Your task to perform on an android device: delete the emails in spam in the gmail app Image 0: 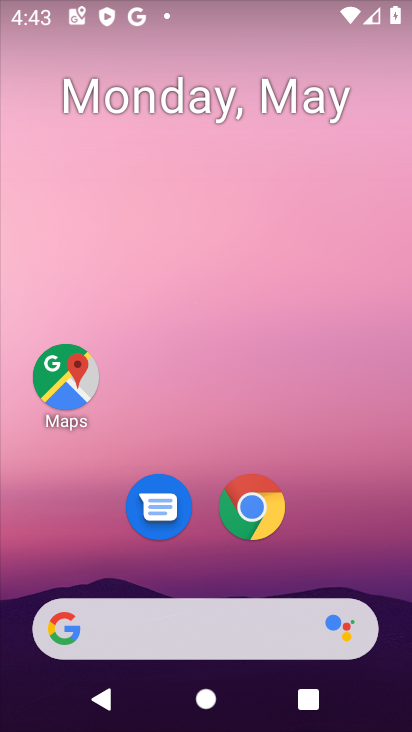
Step 0: drag from (359, 426) to (339, 64)
Your task to perform on an android device: delete the emails in spam in the gmail app Image 1: 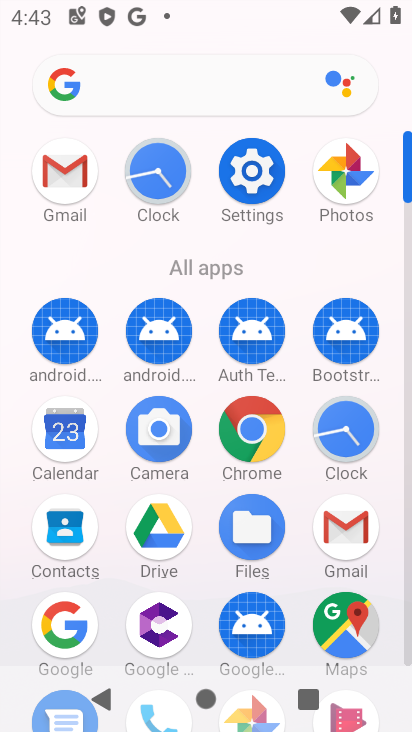
Step 1: click (64, 155)
Your task to perform on an android device: delete the emails in spam in the gmail app Image 2: 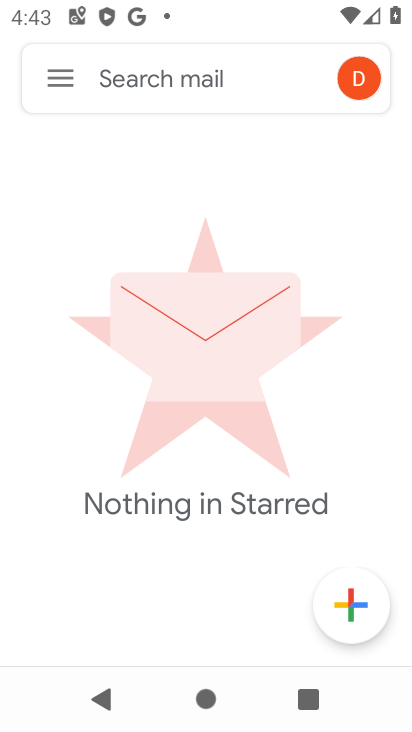
Step 2: click (54, 94)
Your task to perform on an android device: delete the emails in spam in the gmail app Image 3: 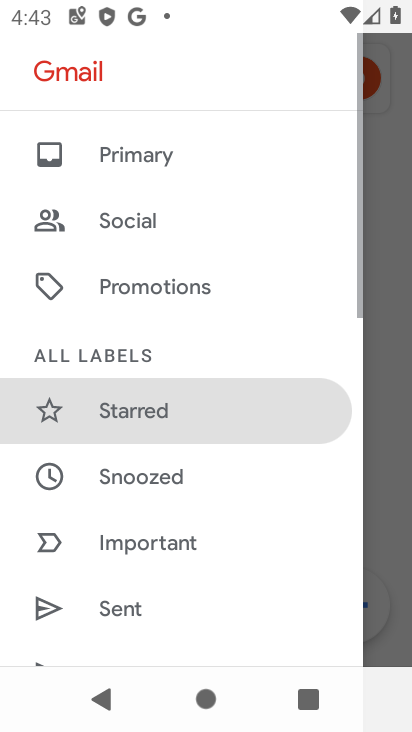
Step 3: drag from (116, 302) to (183, 622)
Your task to perform on an android device: delete the emails in spam in the gmail app Image 4: 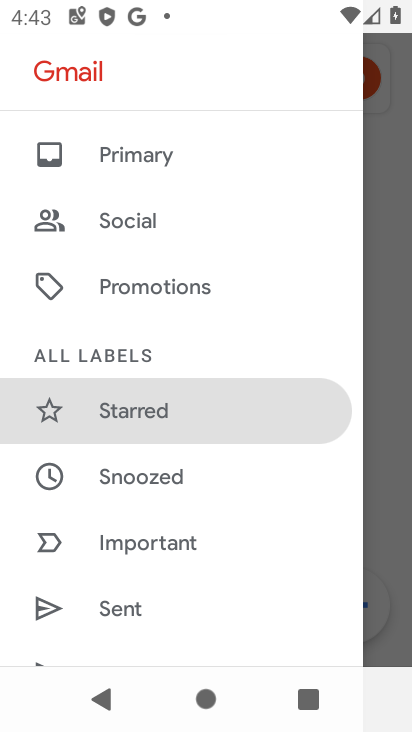
Step 4: drag from (183, 614) to (188, 354)
Your task to perform on an android device: delete the emails in spam in the gmail app Image 5: 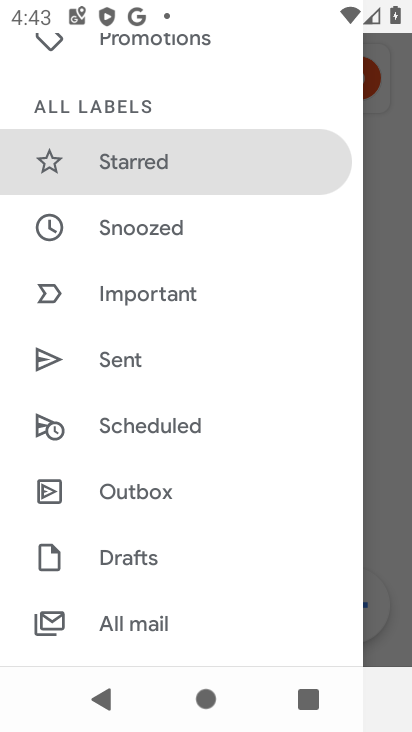
Step 5: drag from (156, 552) to (157, 224)
Your task to perform on an android device: delete the emails in spam in the gmail app Image 6: 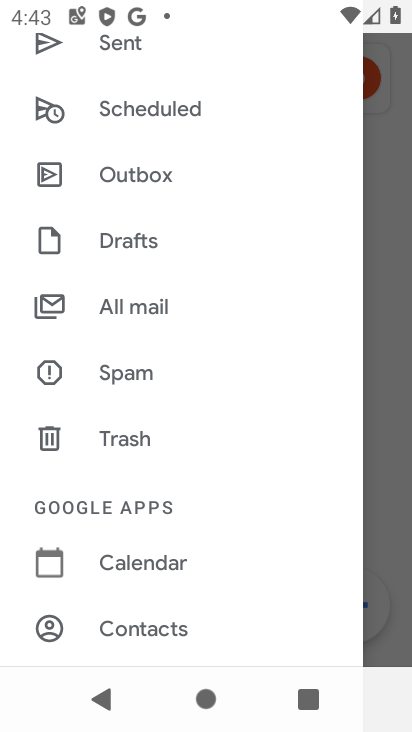
Step 6: click (147, 384)
Your task to perform on an android device: delete the emails in spam in the gmail app Image 7: 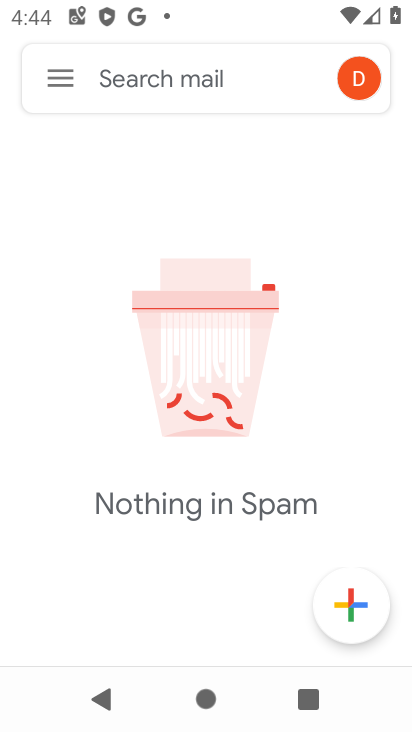
Step 7: task complete